Your task to perform on an android device: turn on sleep mode Image 0: 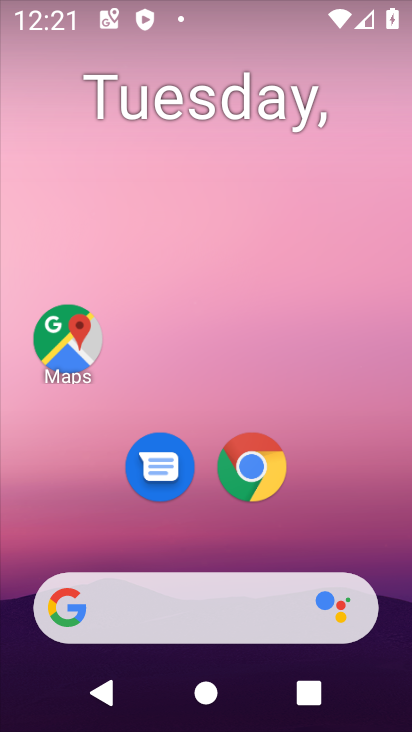
Step 0: drag from (362, 508) to (260, 14)
Your task to perform on an android device: turn on sleep mode Image 1: 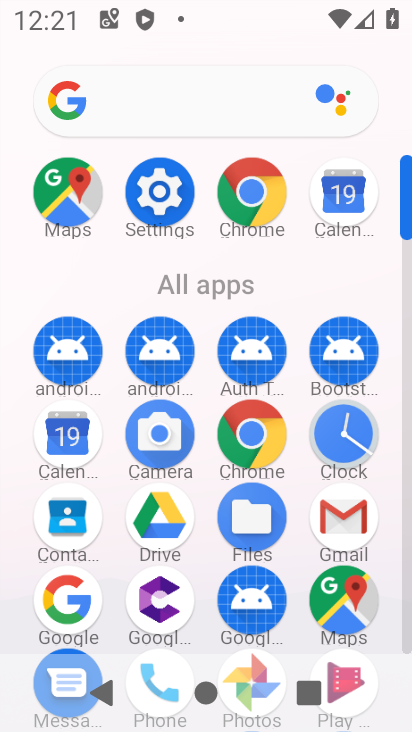
Step 1: drag from (11, 526) to (1, 281)
Your task to perform on an android device: turn on sleep mode Image 2: 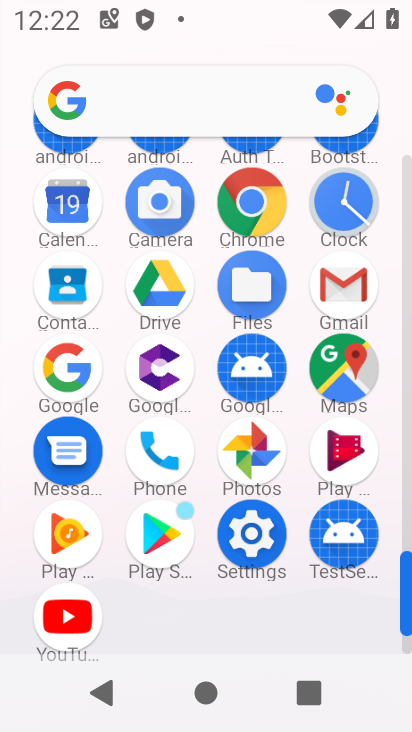
Step 2: click (253, 530)
Your task to perform on an android device: turn on sleep mode Image 3: 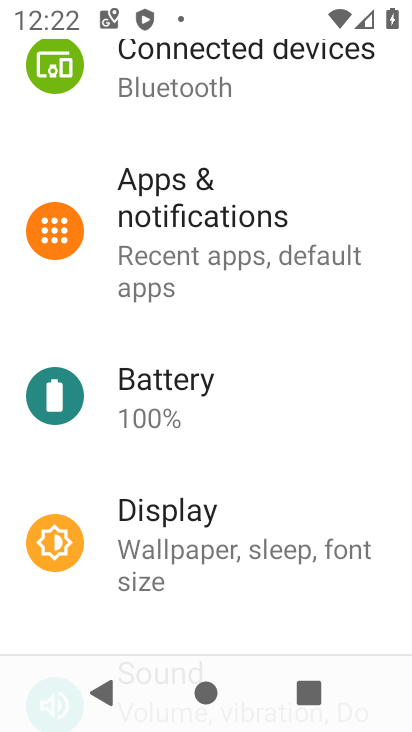
Step 3: drag from (256, 218) to (232, 539)
Your task to perform on an android device: turn on sleep mode Image 4: 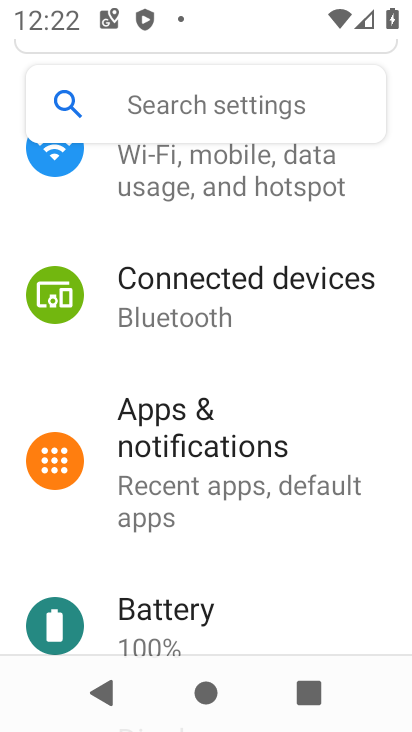
Step 4: drag from (277, 260) to (232, 553)
Your task to perform on an android device: turn on sleep mode Image 5: 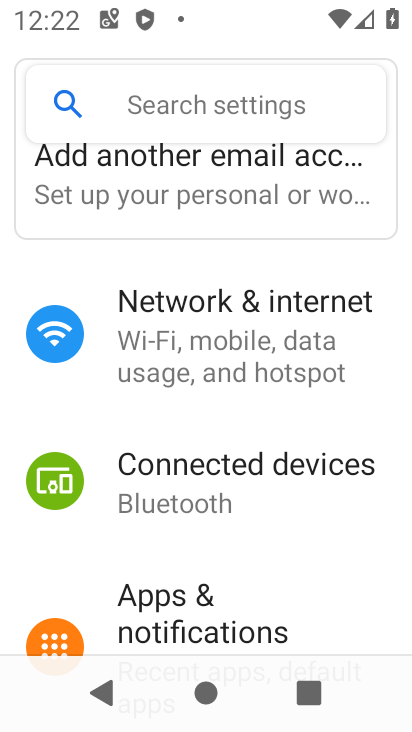
Step 5: drag from (349, 512) to (339, 266)
Your task to perform on an android device: turn on sleep mode Image 6: 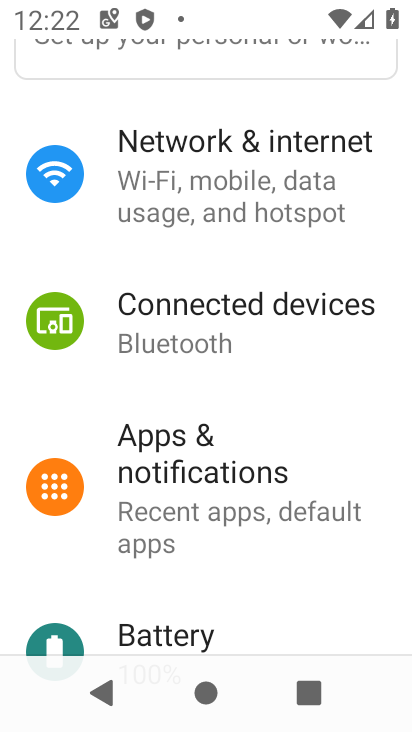
Step 6: drag from (315, 526) to (318, 234)
Your task to perform on an android device: turn on sleep mode Image 7: 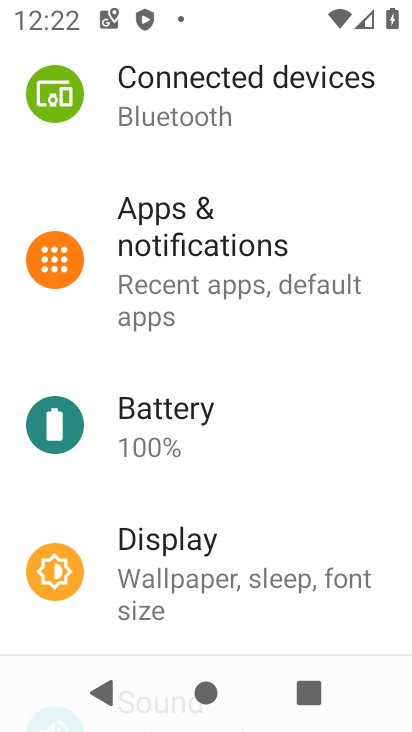
Step 7: drag from (241, 585) to (276, 279)
Your task to perform on an android device: turn on sleep mode Image 8: 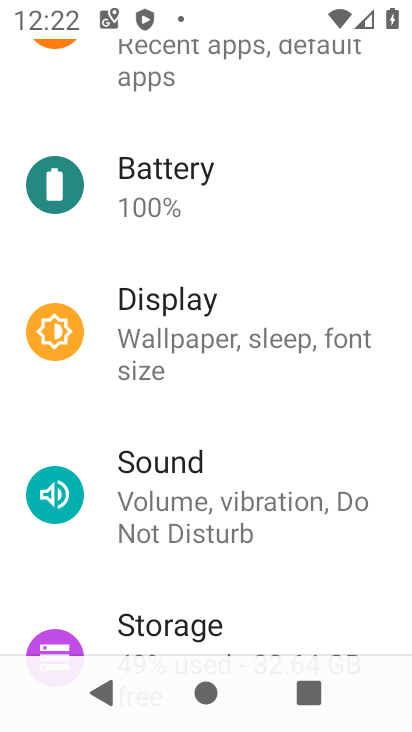
Step 8: click (242, 320)
Your task to perform on an android device: turn on sleep mode Image 9: 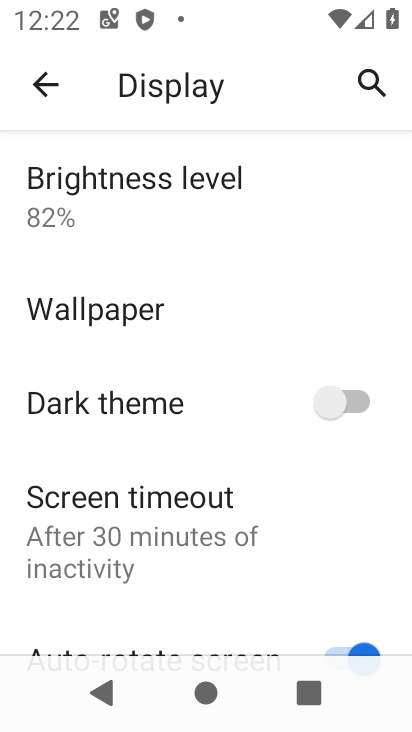
Step 9: drag from (152, 485) to (170, 170)
Your task to perform on an android device: turn on sleep mode Image 10: 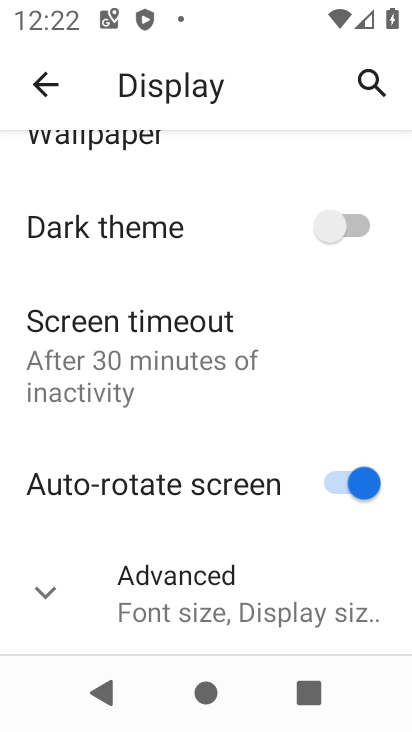
Step 10: drag from (153, 446) to (162, 210)
Your task to perform on an android device: turn on sleep mode Image 11: 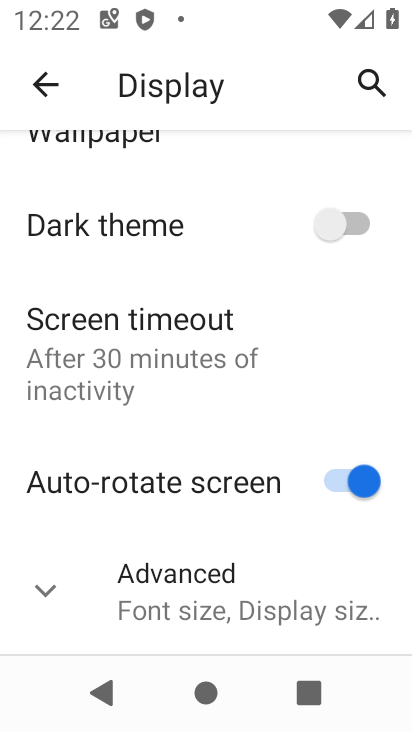
Step 11: click (62, 586)
Your task to perform on an android device: turn on sleep mode Image 12: 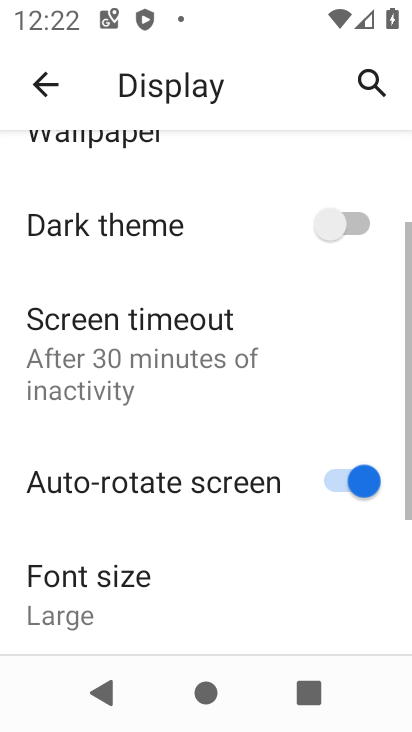
Step 12: task complete